Your task to perform on an android device: toggle pop-ups in chrome Image 0: 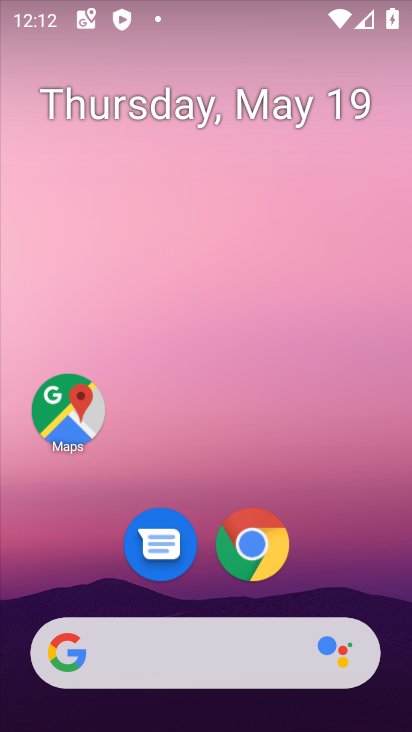
Step 0: drag from (371, 639) to (296, 38)
Your task to perform on an android device: toggle pop-ups in chrome Image 1: 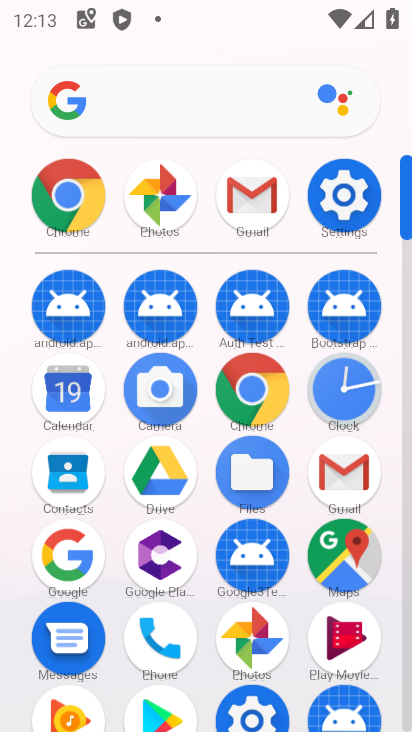
Step 1: click (249, 387)
Your task to perform on an android device: toggle pop-ups in chrome Image 2: 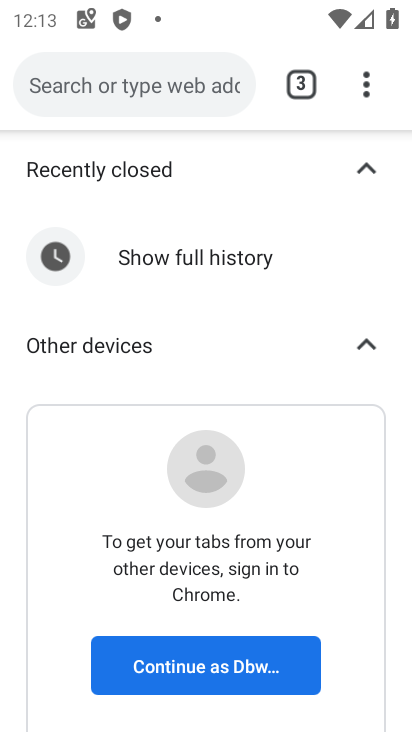
Step 2: click (364, 84)
Your task to perform on an android device: toggle pop-ups in chrome Image 3: 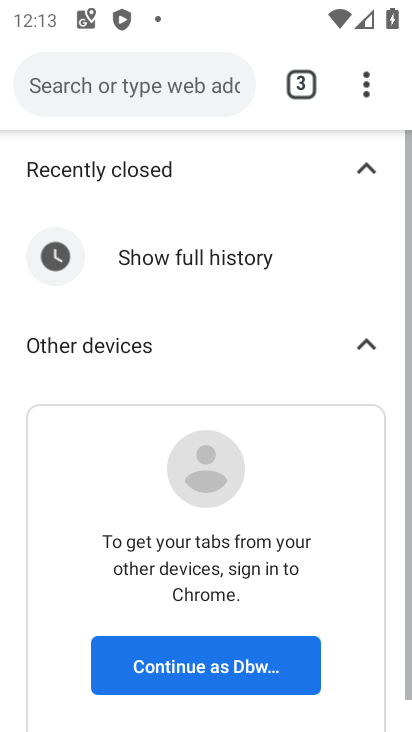
Step 3: drag from (369, 74) to (89, 597)
Your task to perform on an android device: toggle pop-ups in chrome Image 4: 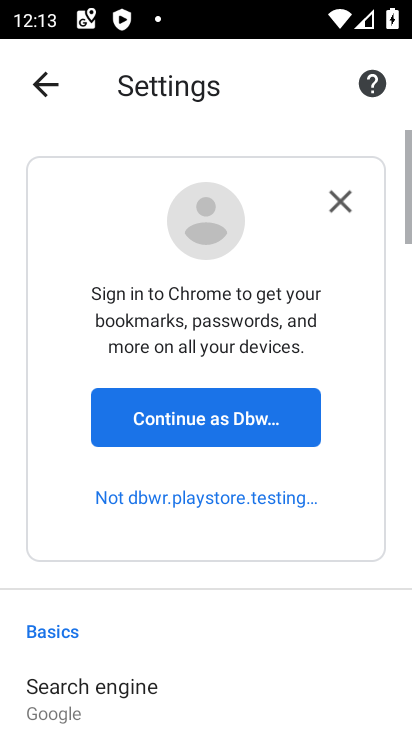
Step 4: drag from (89, 597) to (125, 181)
Your task to perform on an android device: toggle pop-ups in chrome Image 5: 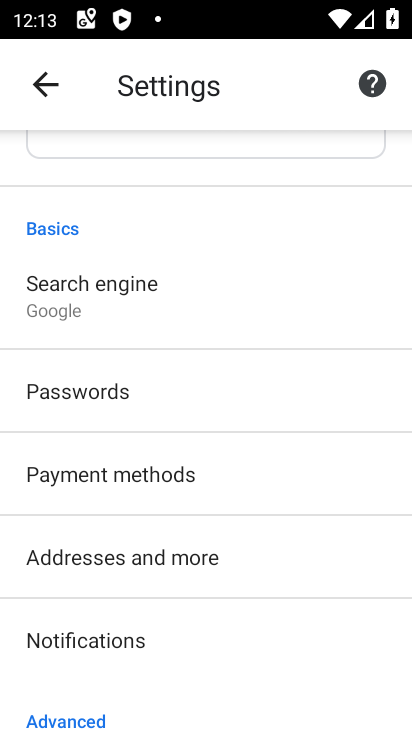
Step 5: drag from (207, 580) to (266, 217)
Your task to perform on an android device: toggle pop-ups in chrome Image 6: 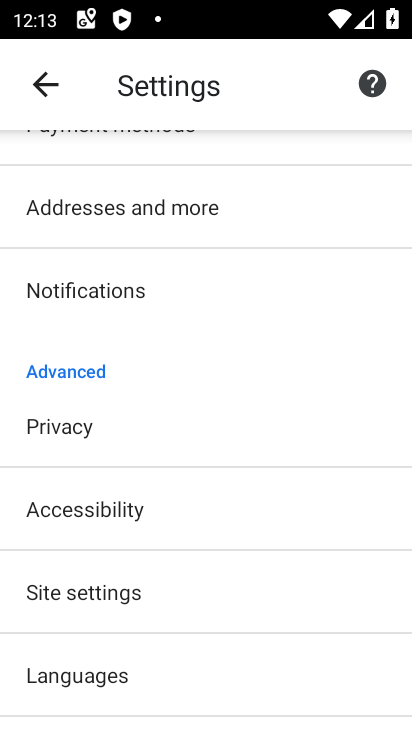
Step 6: drag from (269, 454) to (280, 332)
Your task to perform on an android device: toggle pop-ups in chrome Image 7: 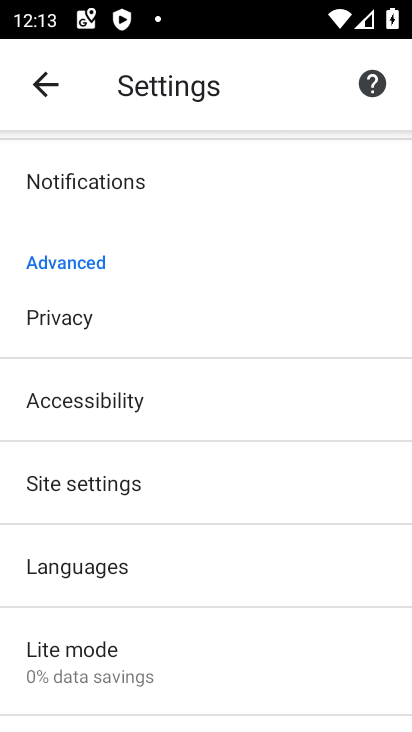
Step 7: drag from (238, 419) to (230, 524)
Your task to perform on an android device: toggle pop-ups in chrome Image 8: 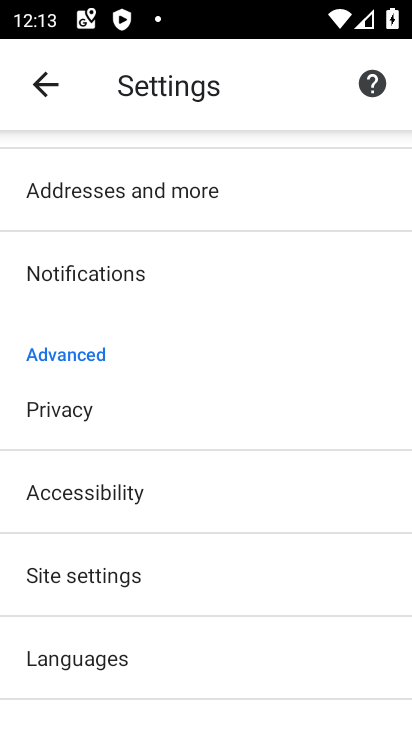
Step 8: drag from (116, 635) to (106, 511)
Your task to perform on an android device: toggle pop-ups in chrome Image 9: 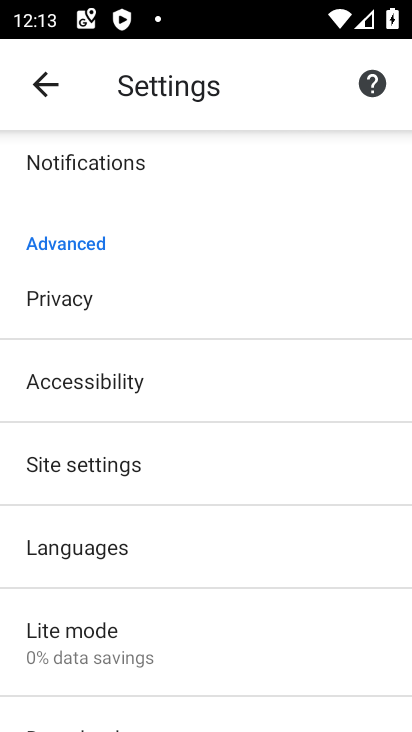
Step 9: click (162, 492)
Your task to perform on an android device: toggle pop-ups in chrome Image 10: 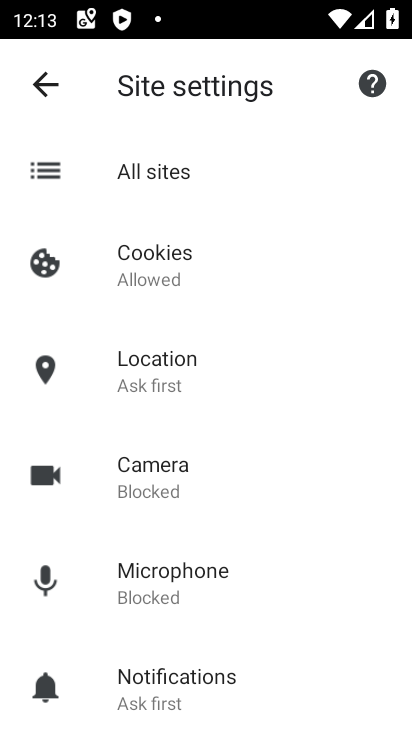
Step 10: drag from (172, 492) to (181, 450)
Your task to perform on an android device: toggle pop-ups in chrome Image 11: 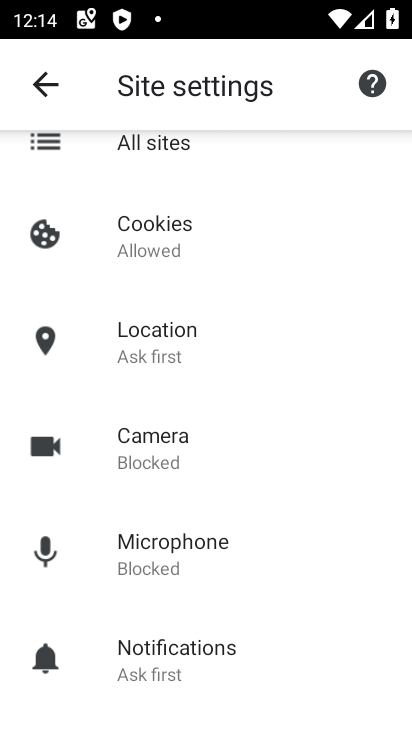
Step 11: drag from (221, 587) to (227, 216)
Your task to perform on an android device: toggle pop-ups in chrome Image 12: 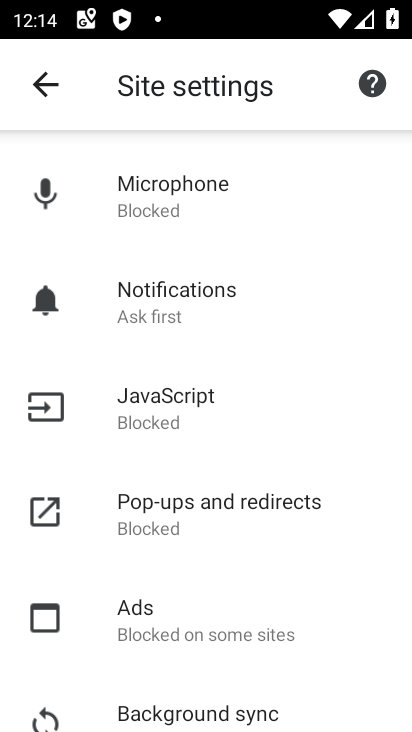
Step 12: click (193, 504)
Your task to perform on an android device: toggle pop-ups in chrome Image 13: 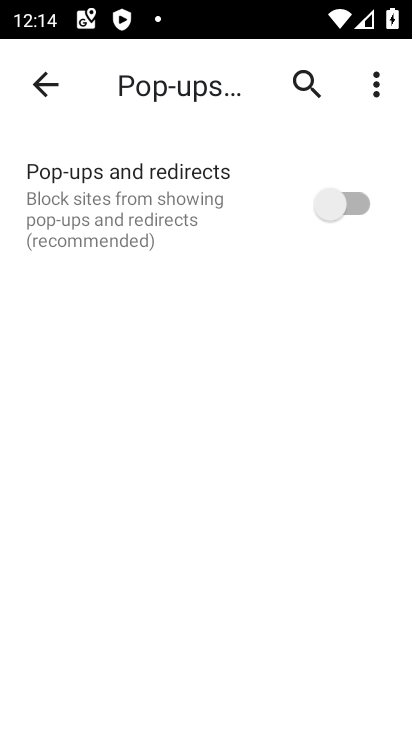
Step 13: click (350, 193)
Your task to perform on an android device: toggle pop-ups in chrome Image 14: 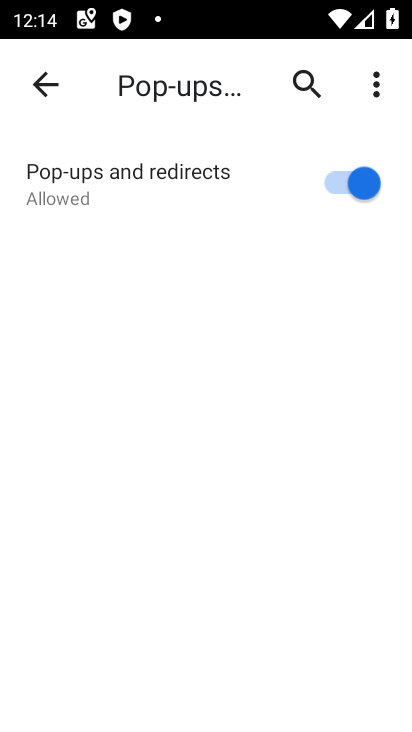
Step 14: task complete